Your task to perform on an android device: snooze an email in the gmail app Image 0: 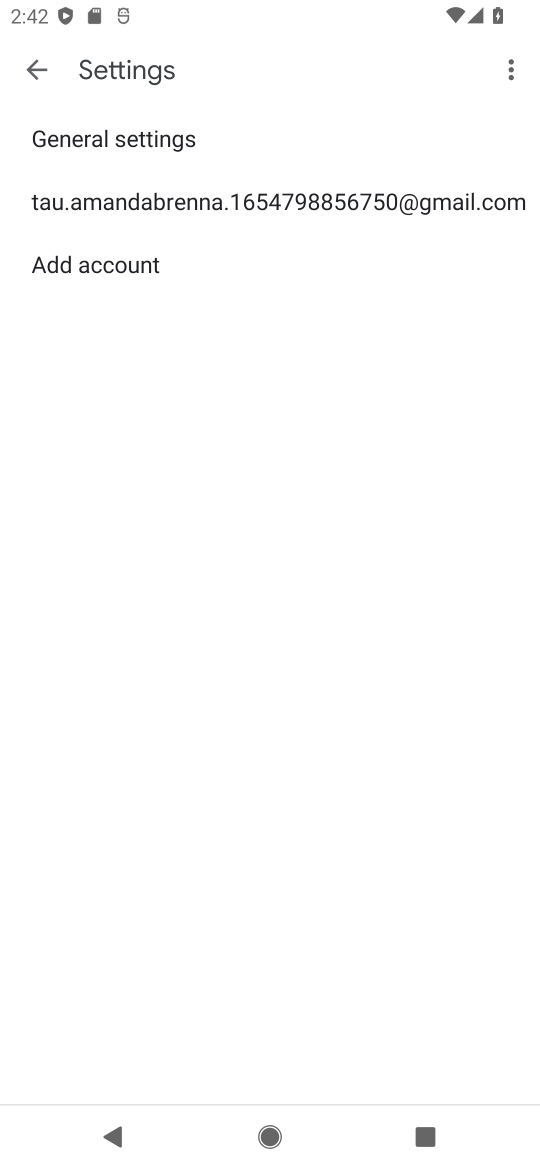
Step 0: click (35, 70)
Your task to perform on an android device: snooze an email in the gmail app Image 1: 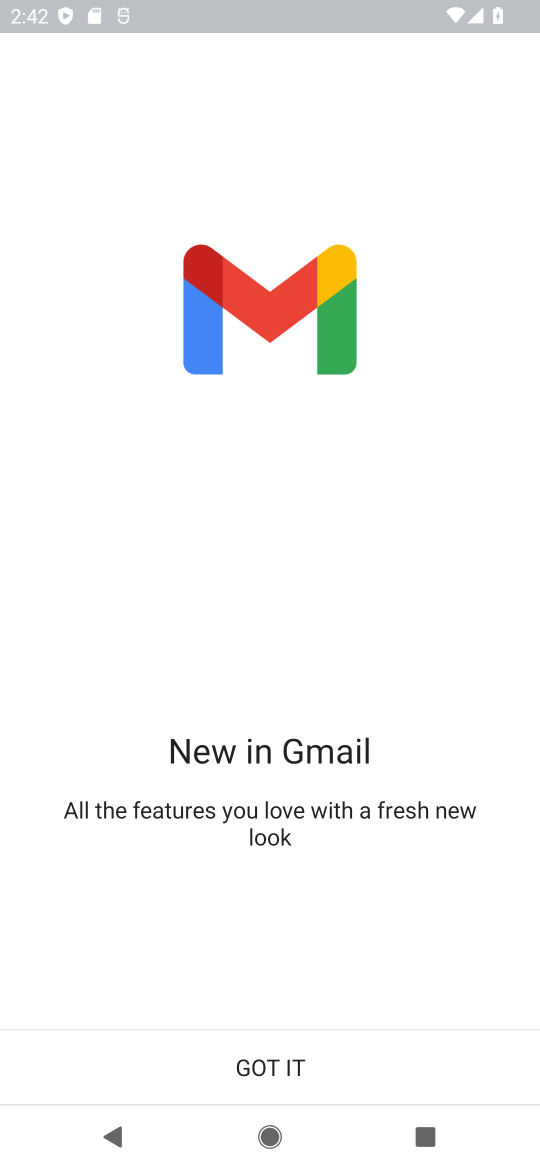
Step 1: press back button
Your task to perform on an android device: snooze an email in the gmail app Image 2: 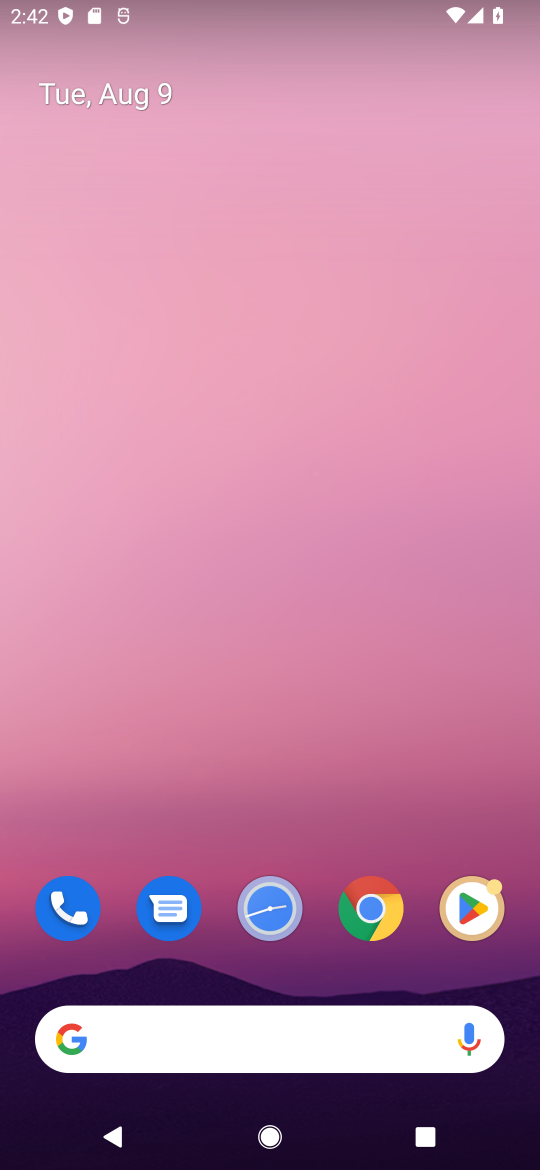
Step 2: drag from (348, 1117) to (256, 65)
Your task to perform on an android device: snooze an email in the gmail app Image 3: 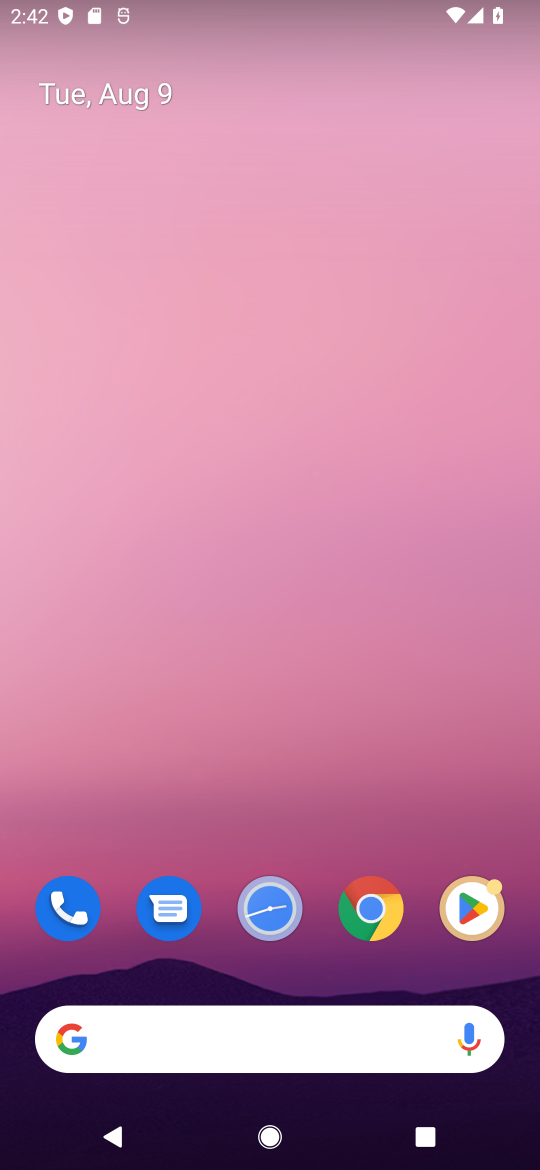
Step 3: click (244, 90)
Your task to perform on an android device: snooze an email in the gmail app Image 4: 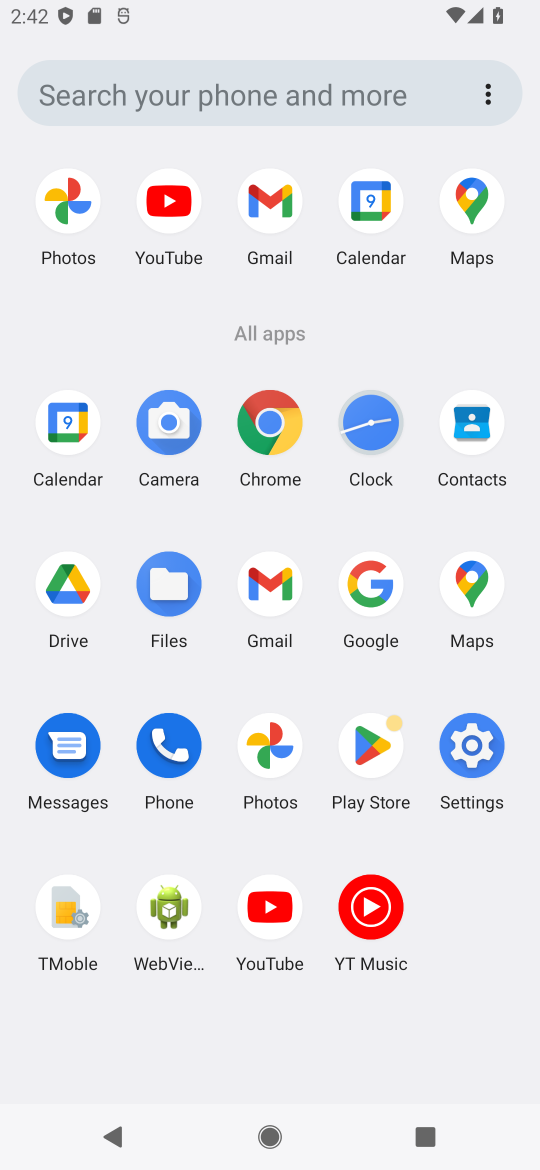
Step 4: click (251, 597)
Your task to perform on an android device: snooze an email in the gmail app Image 5: 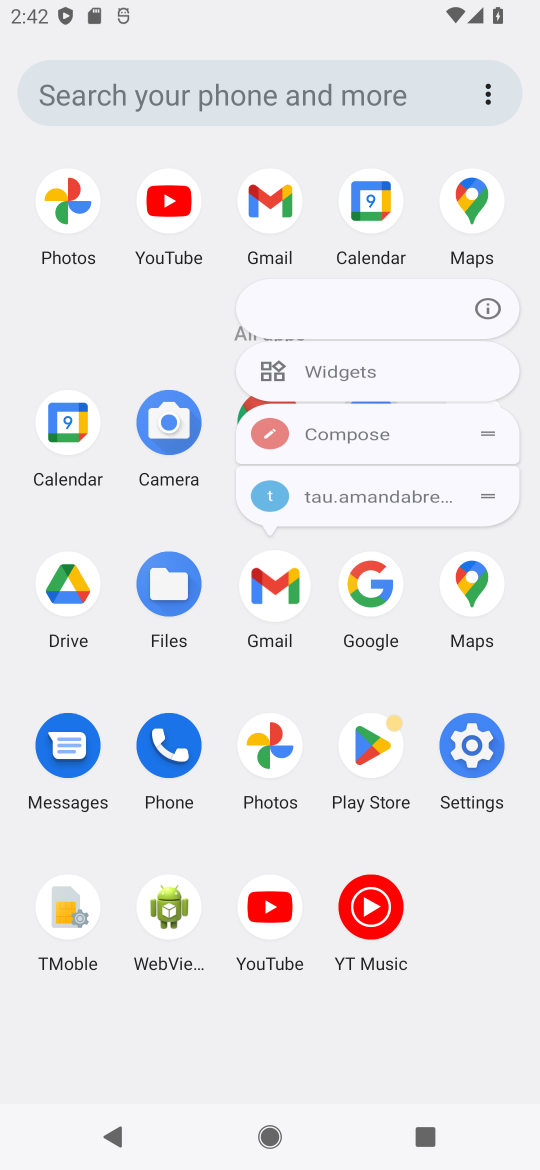
Step 5: click (258, 602)
Your task to perform on an android device: snooze an email in the gmail app Image 6: 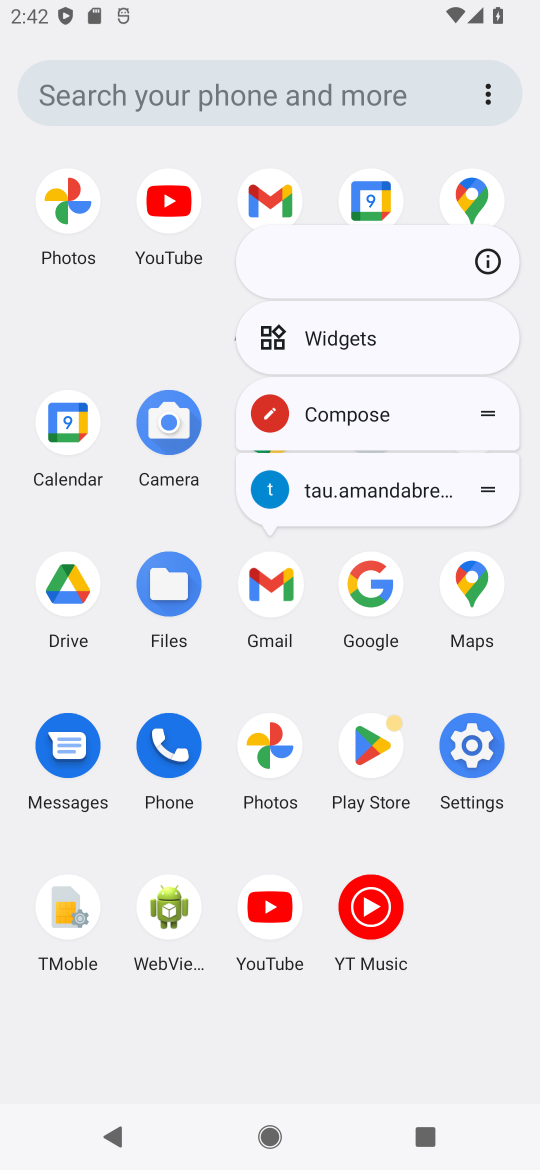
Step 6: click (256, 603)
Your task to perform on an android device: snooze an email in the gmail app Image 7: 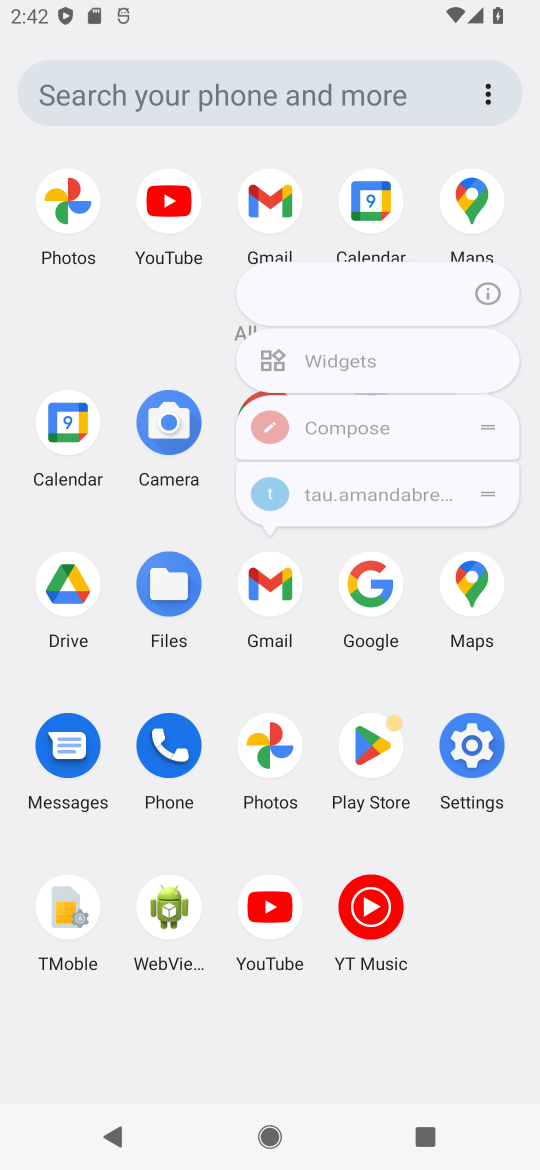
Step 7: click (255, 603)
Your task to perform on an android device: snooze an email in the gmail app Image 8: 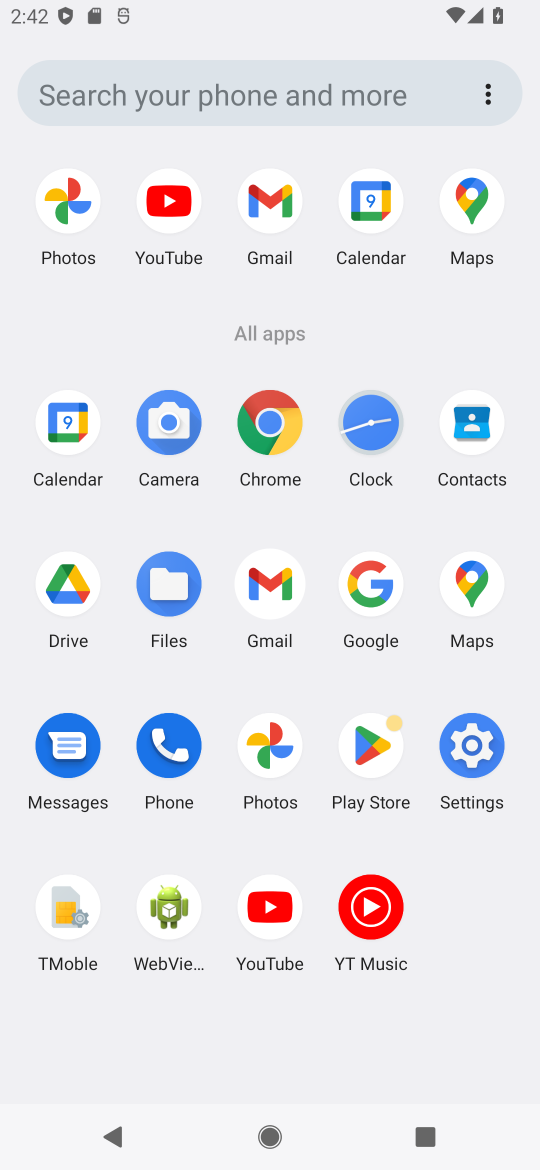
Step 8: click (255, 603)
Your task to perform on an android device: snooze an email in the gmail app Image 9: 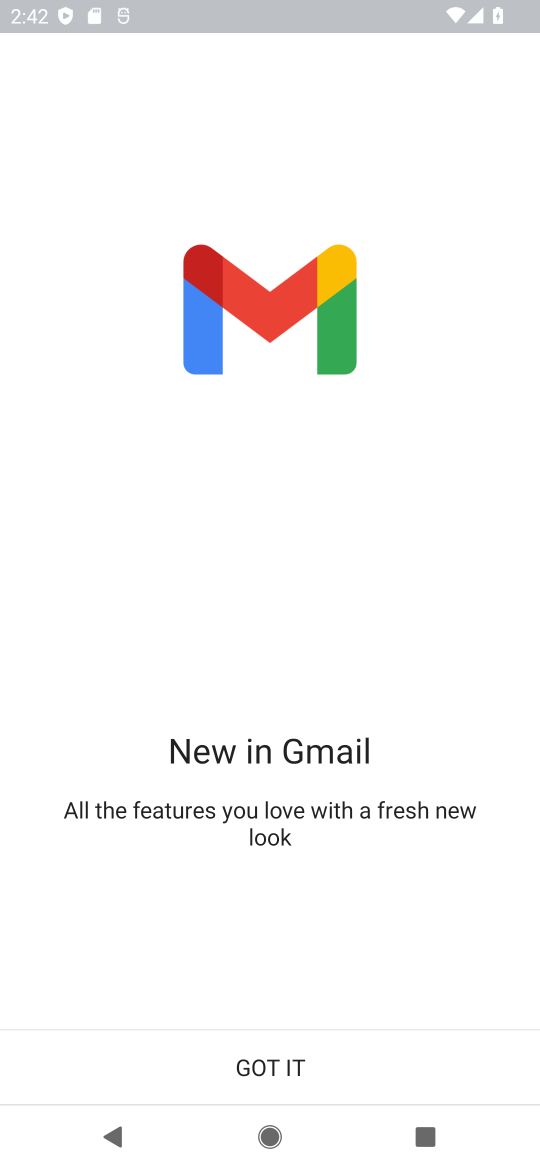
Step 9: click (264, 589)
Your task to perform on an android device: snooze an email in the gmail app Image 10: 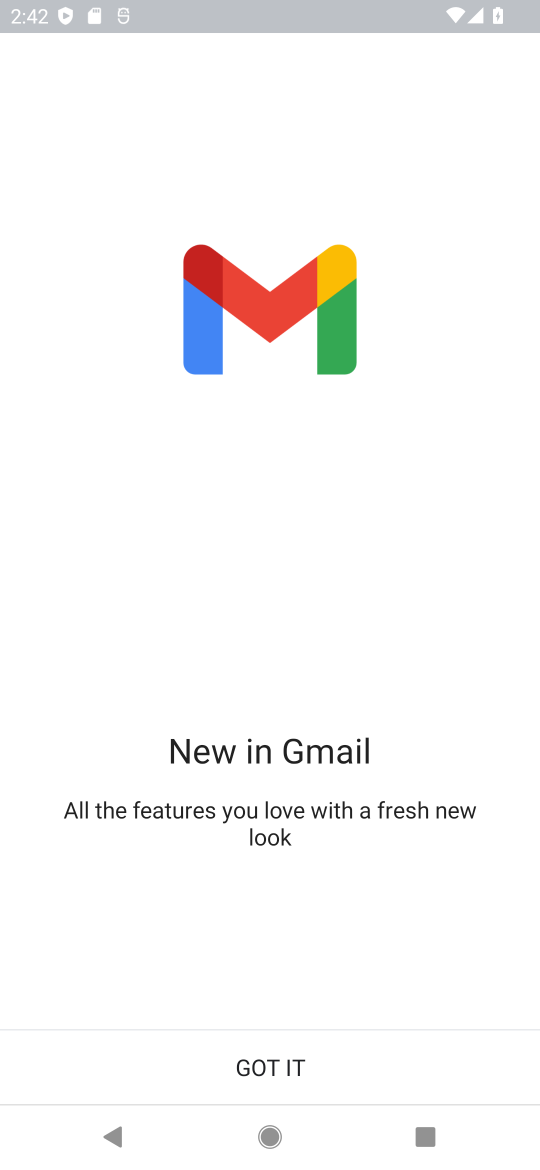
Step 10: click (278, 1053)
Your task to perform on an android device: snooze an email in the gmail app Image 11: 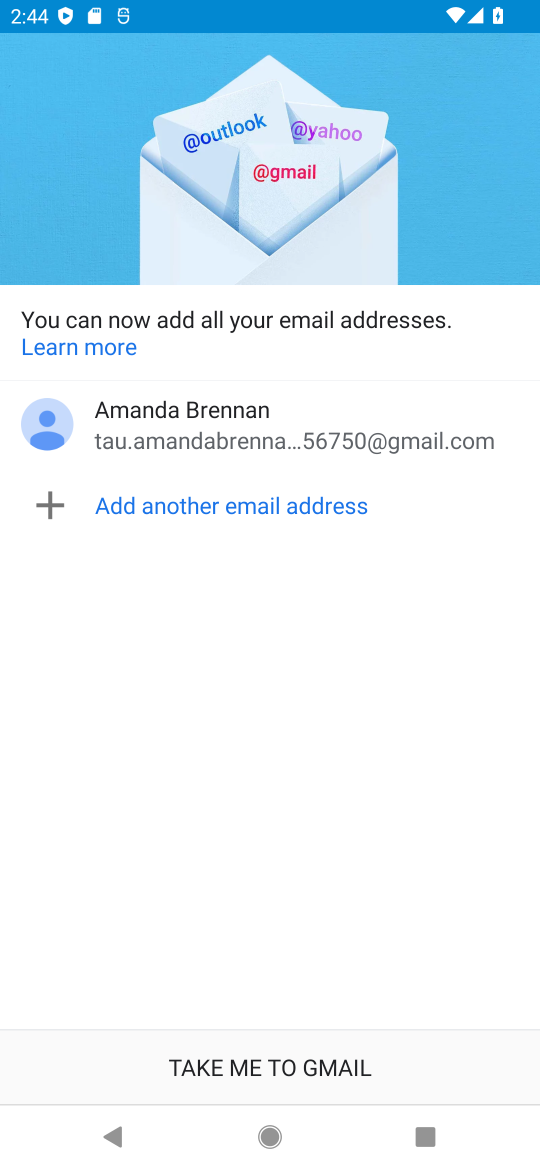
Step 11: click (311, 1061)
Your task to perform on an android device: snooze an email in the gmail app Image 12: 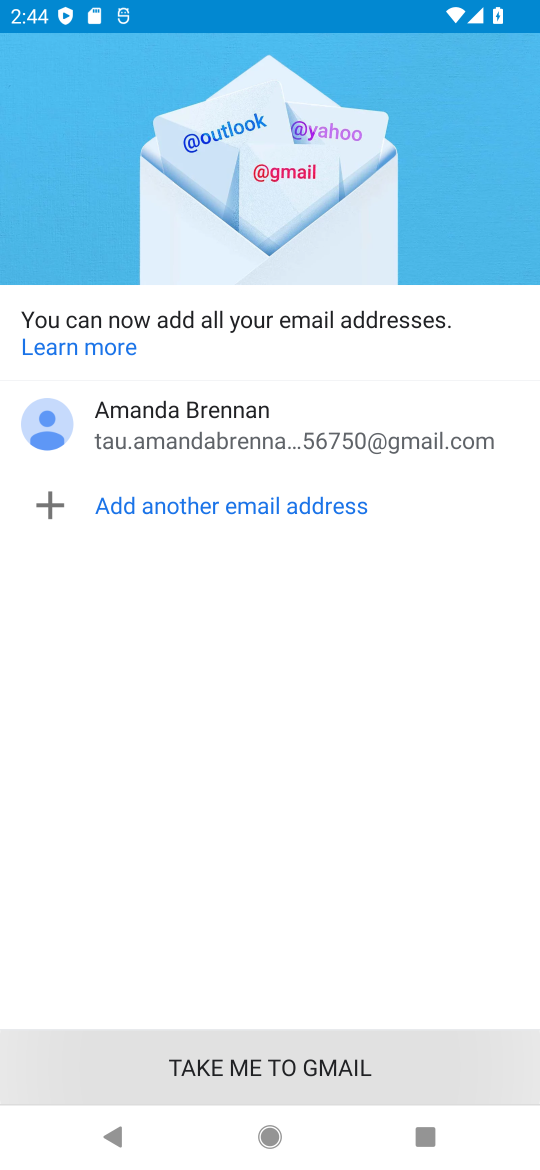
Step 12: click (311, 1061)
Your task to perform on an android device: snooze an email in the gmail app Image 13: 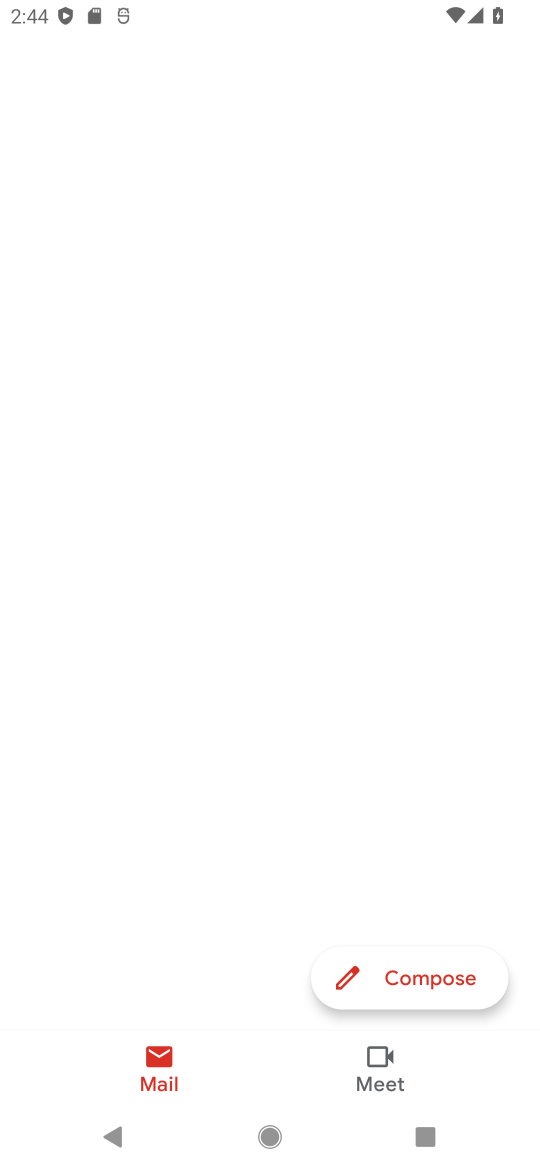
Step 13: click (311, 1061)
Your task to perform on an android device: snooze an email in the gmail app Image 14: 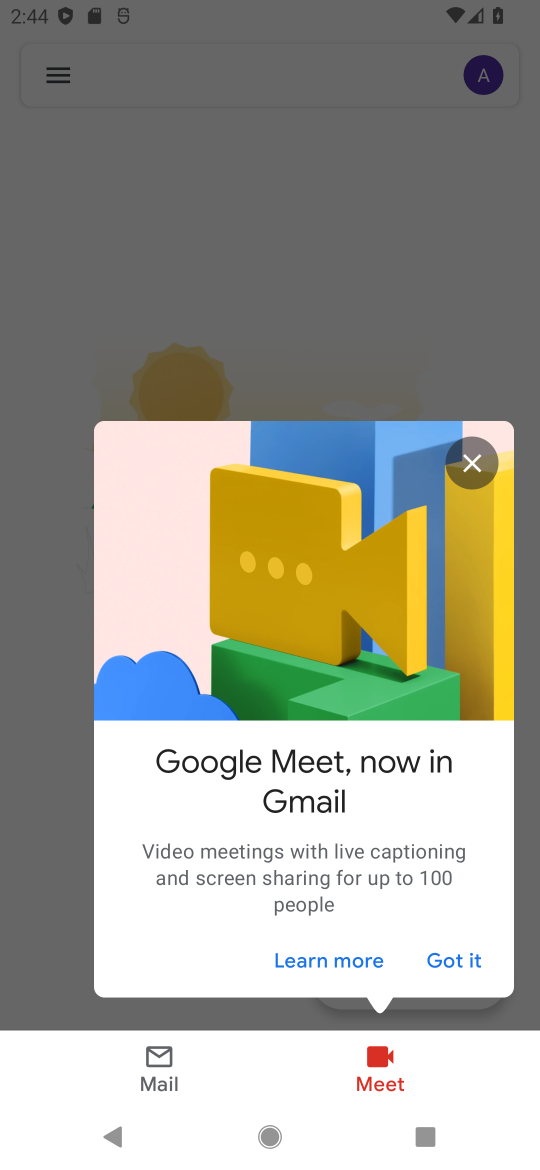
Step 14: click (480, 457)
Your task to perform on an android device: snooze an email in the gmail app Image 15: 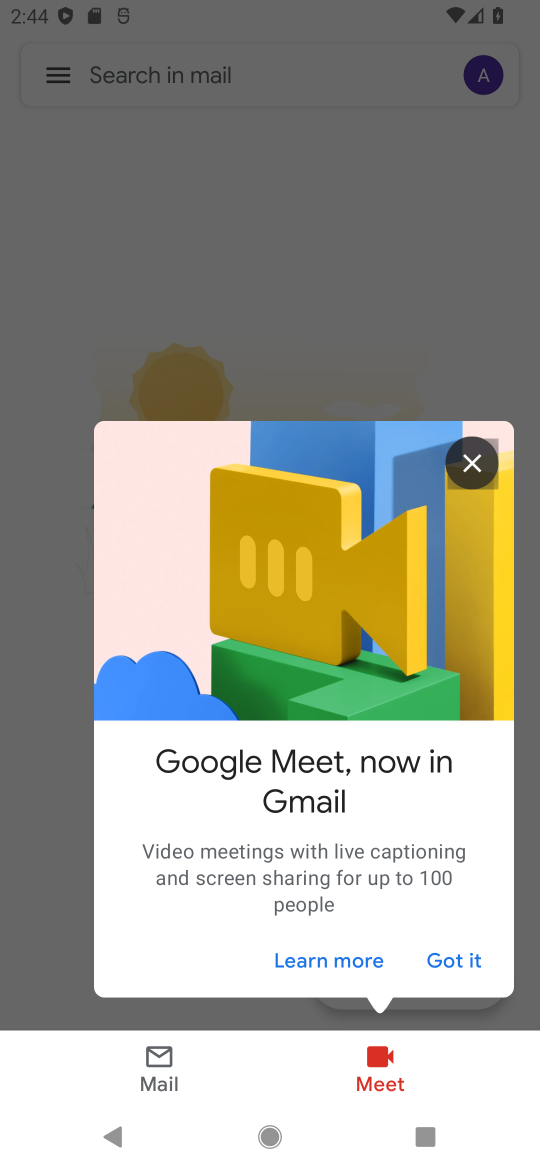
Step 15: click (476, 457)
Your task to perform on an android device: snooze an email in the gmail app Image 16: 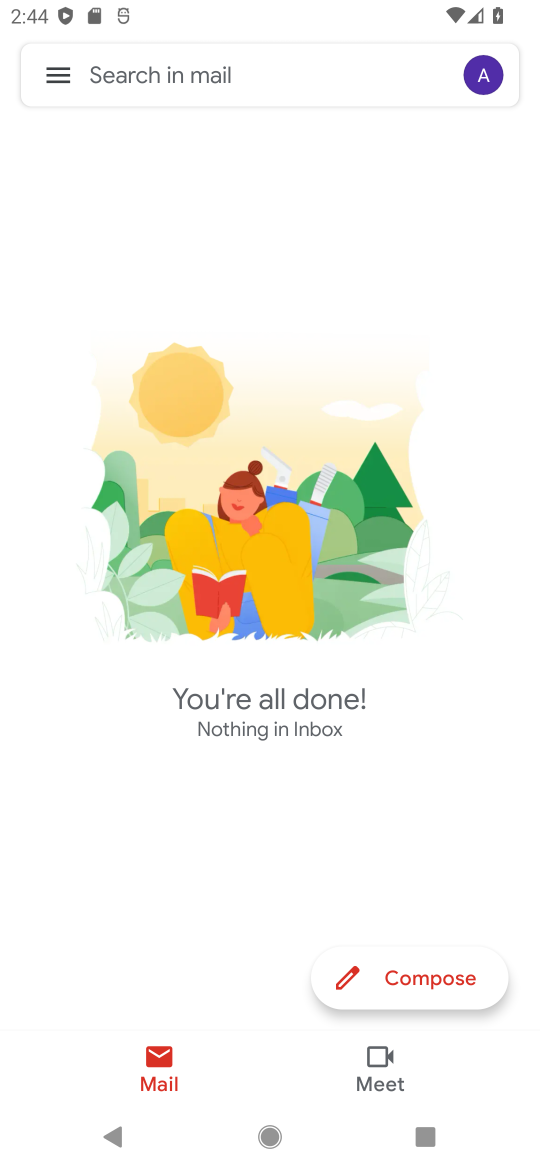
Step 16: click (61, 81)
Your task to perform on an android device: snooze an email in the gmail app Image 17: 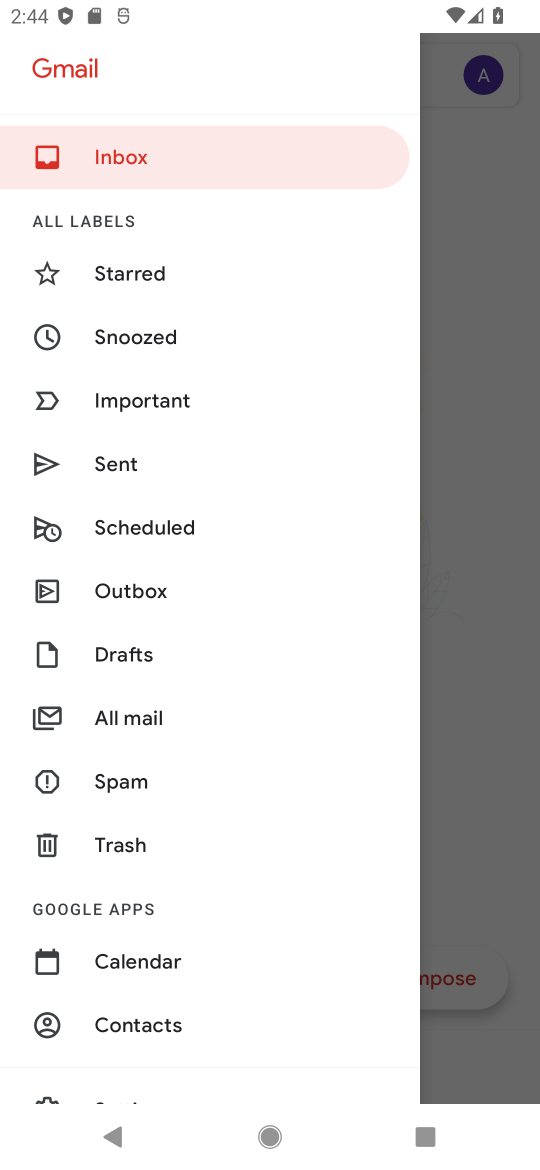
Step 17: click (140, 334)
Your task to perform on an android device: snooze an email in the gmail app Image 18: 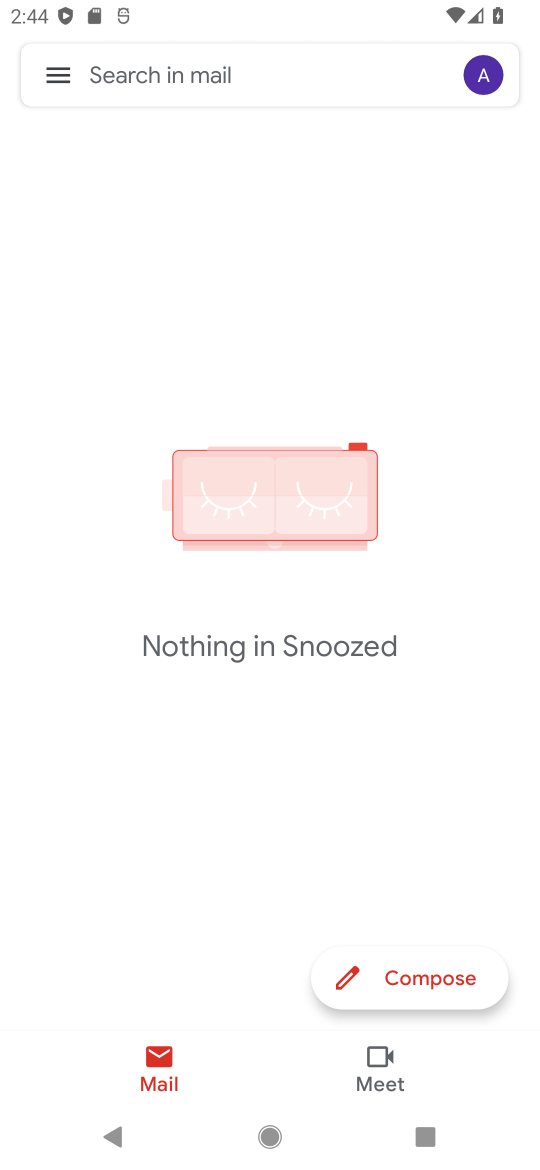
Step 18: press back button
Your task to perform on an android device: snooze an email in the gmail app Image 19: 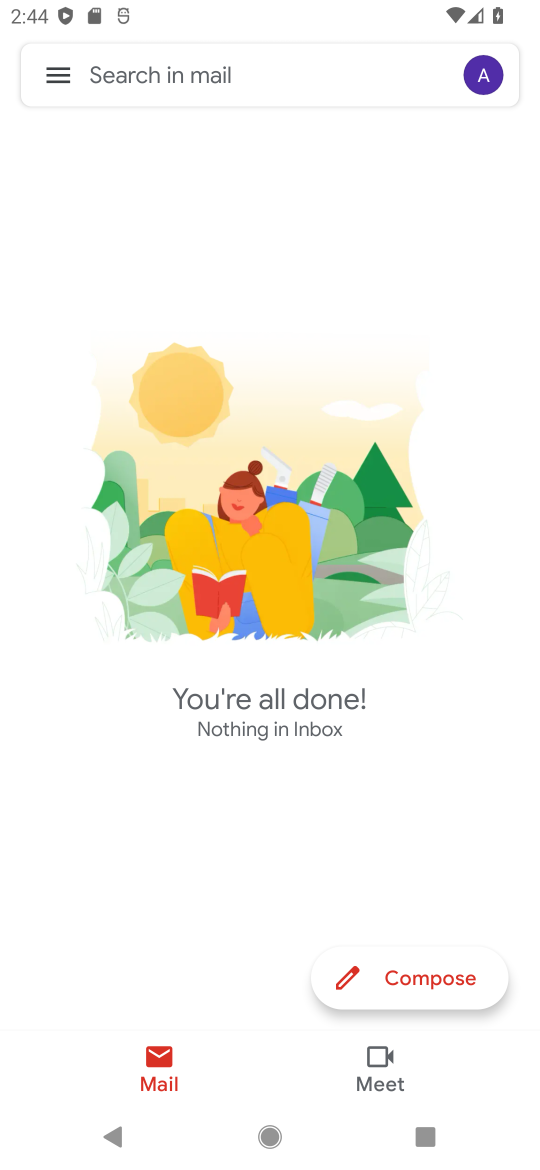
Step 19: drag from (372, 1158) to (364, 419)
Your task to perform on an android device: snooze an email in the gmail app Image 20: 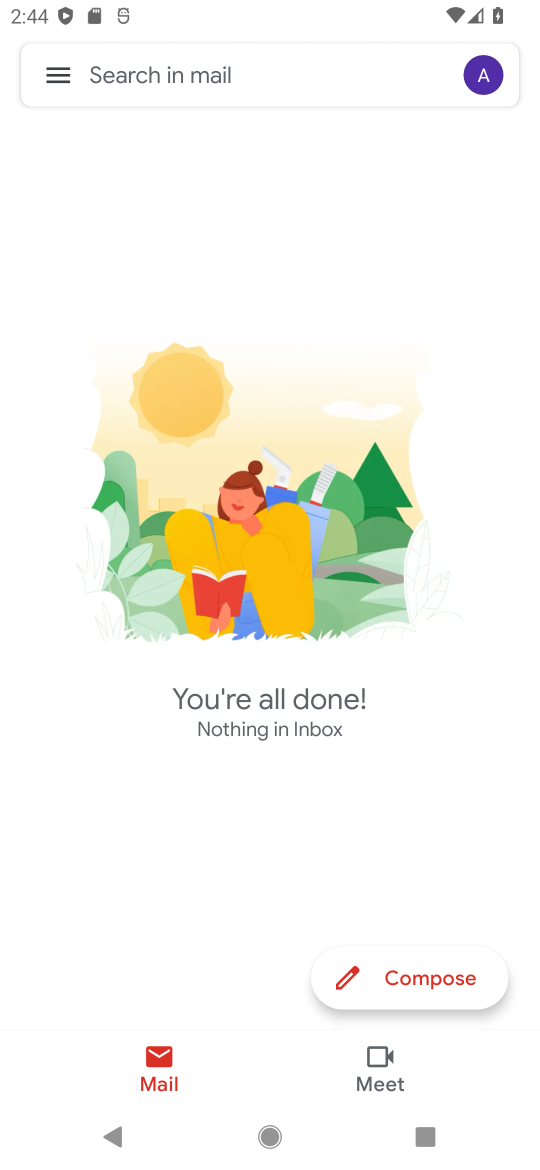
Step 20: click (53, 80)
Your task to perform on an android device: snooze an email in the gmail app Image 21: 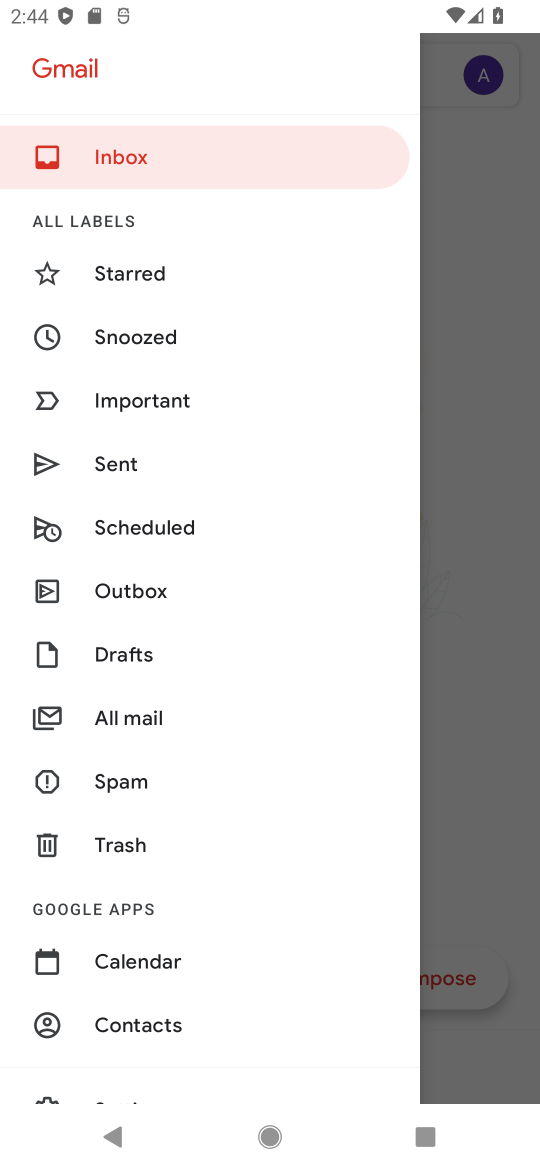
Step 21: click (135, 722)
Your task to perform on an android device: snooze an email in the gmail app Image 22: 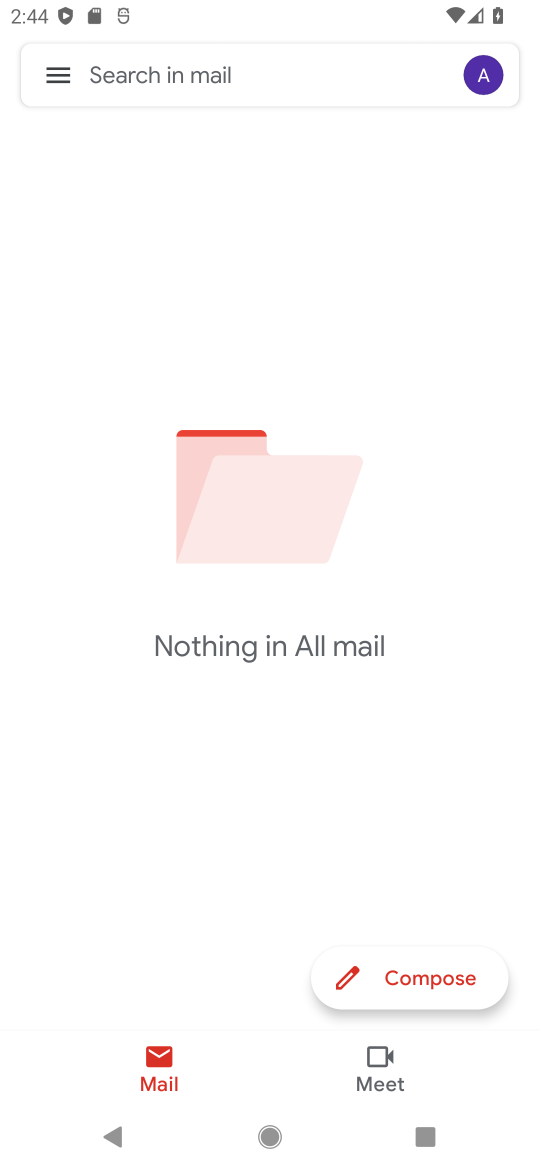
Step 22: task complete